Your task to perform on an android device: Find coffee shops on Maps Image 0: 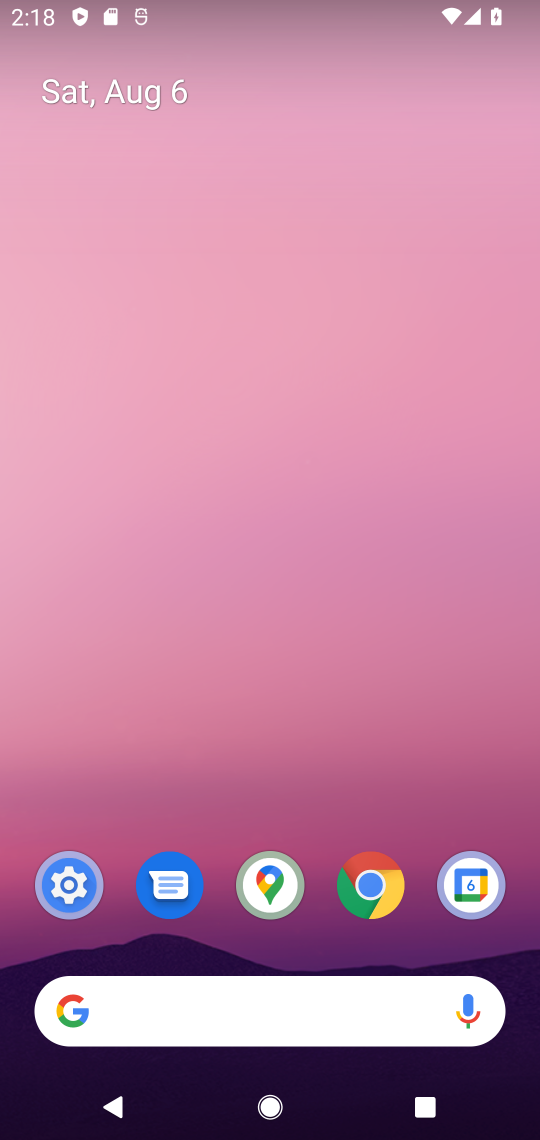
Step 0: drag from (425, 933) to (222, 31)
Your task to perform on an android device: Find coffee shops on Maps Image 1: 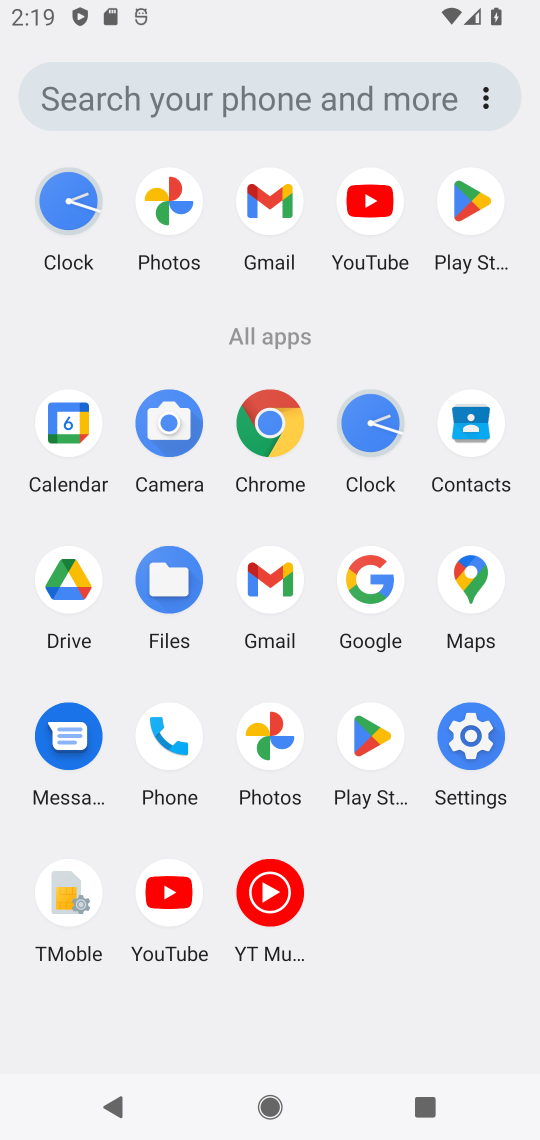
Step 1: click (462, 594)
Your task to perform on an android device: Find coffee shops on Maps Image 2: 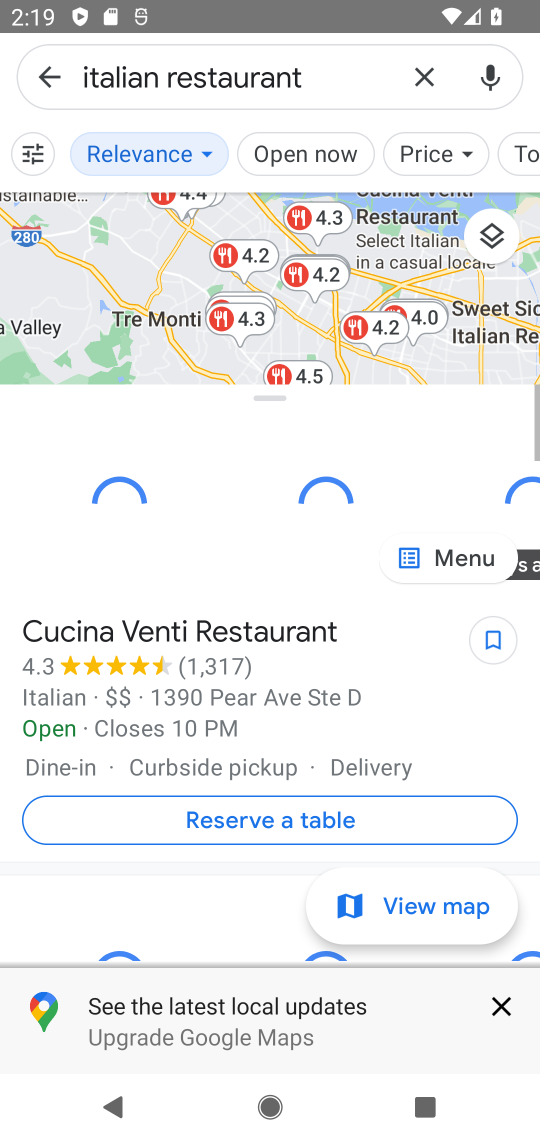
Step 2: click (418, 88)
Your task to perform on an android device: Find coffee shops on Maps Image 3: 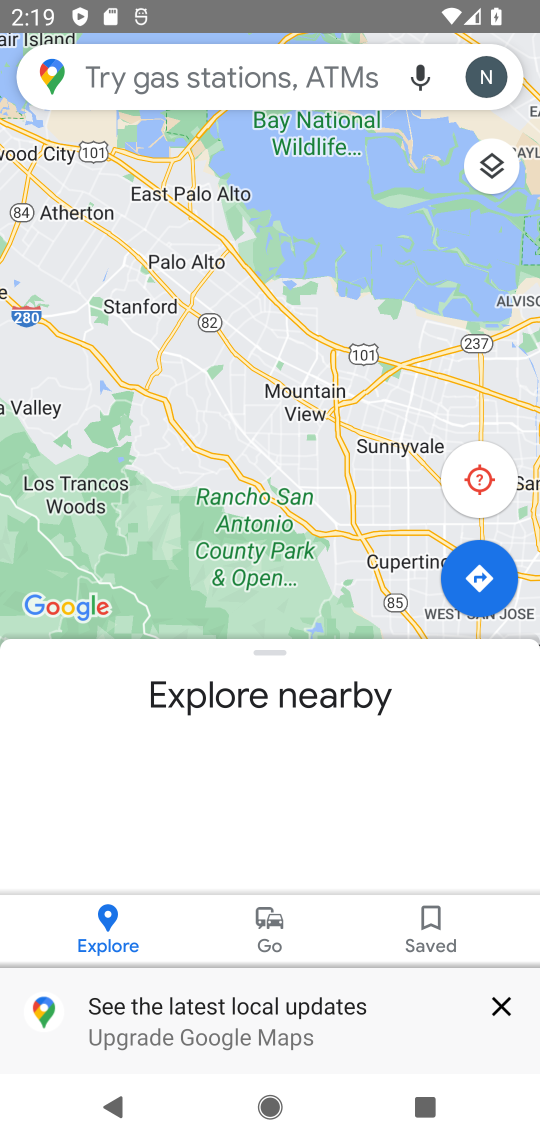
Step 3: click (117, 79)
Your task to perform on an android device: Find coffee shops on Maps Image 4: 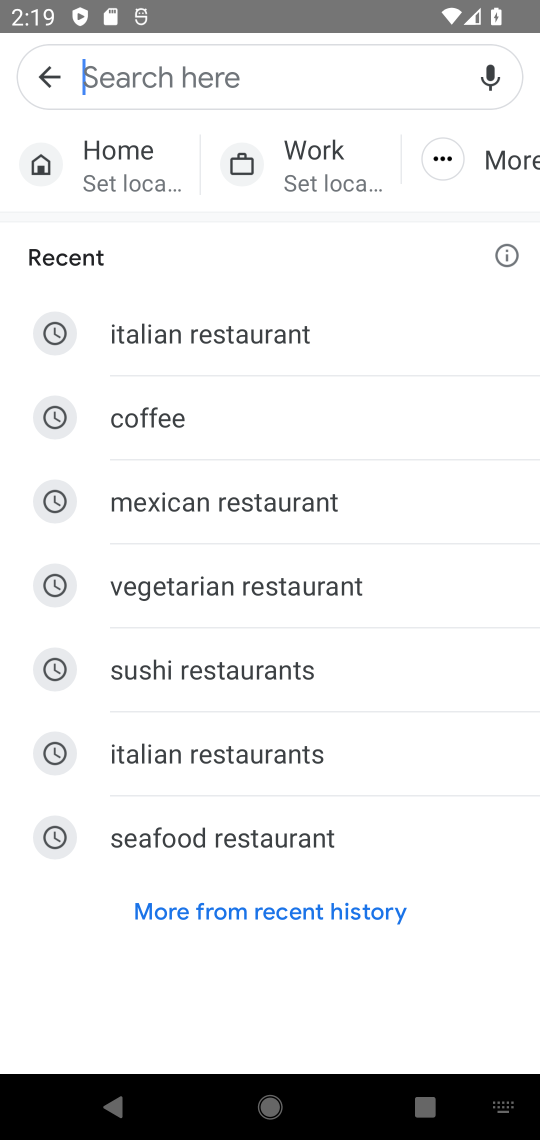
Step 4: click (176, 423)
Your task to perform on an android device: Find coffee shops on Maps Image 5: 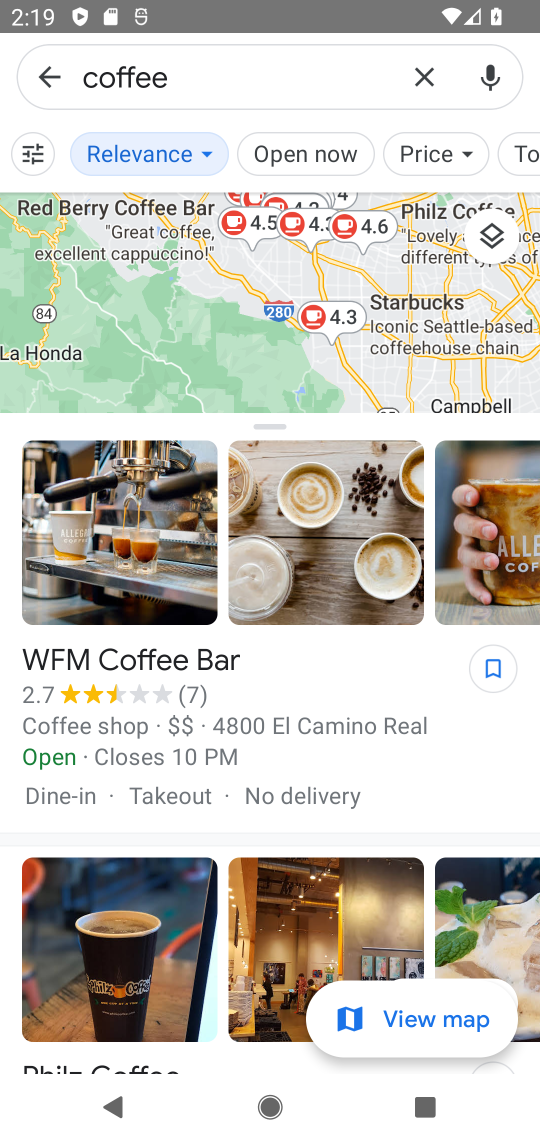
Step 5: task complete